Your task to perform on an android device: Add alienware aurora to the cart on target.com Image 0: 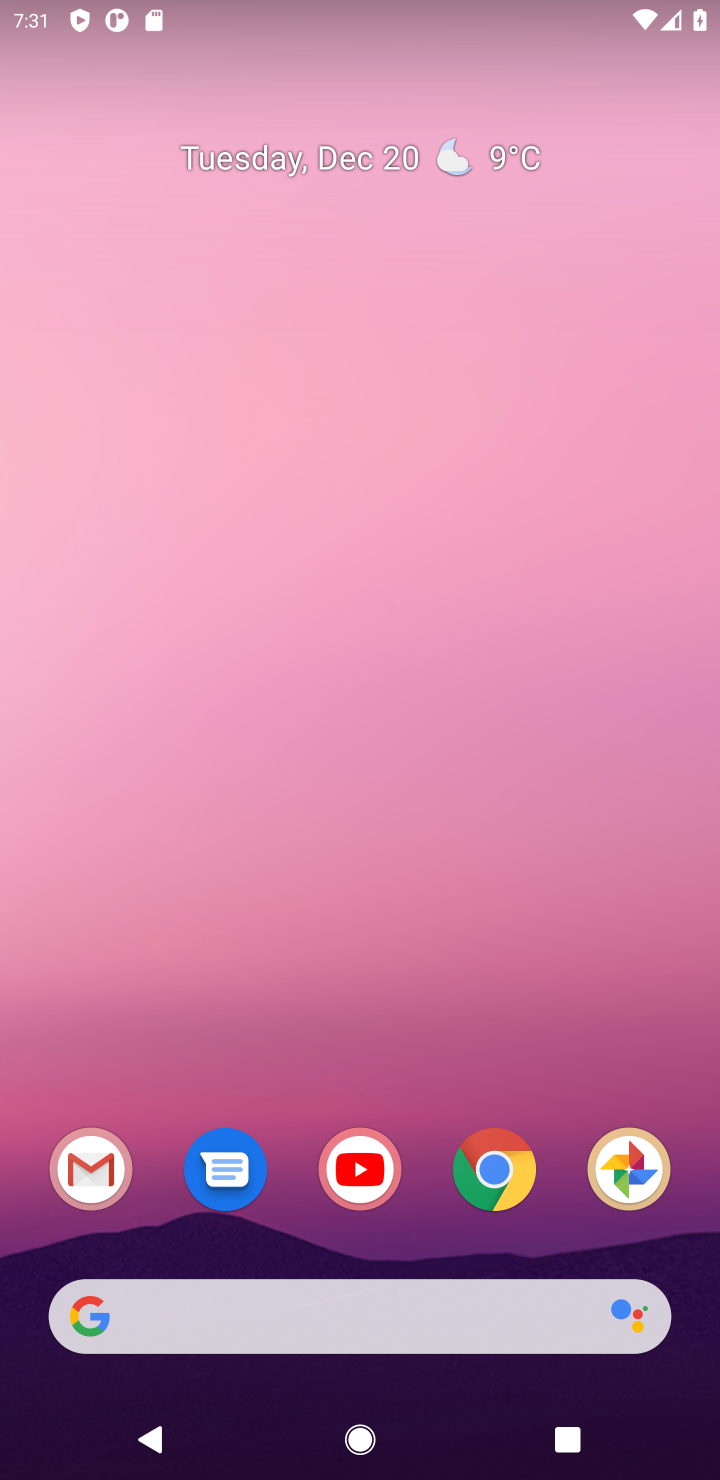
Step 0: click (488, 1190)
Your task to perform on an android device: Add alienware aurora to the cart on target.com Image 1: 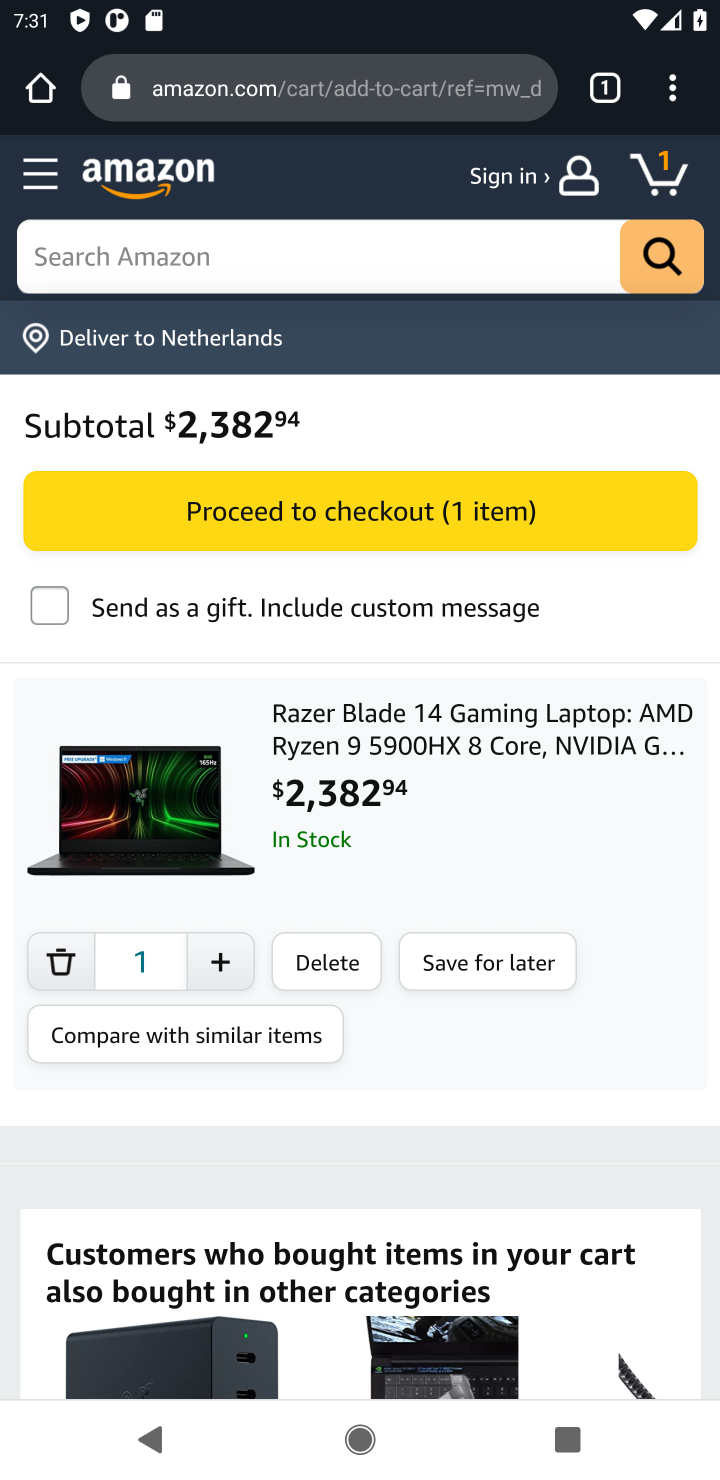
Step 1: click (295, 110)
Your task to perform on an android device: Add alienware aurora to the cart on target.com Image 2: 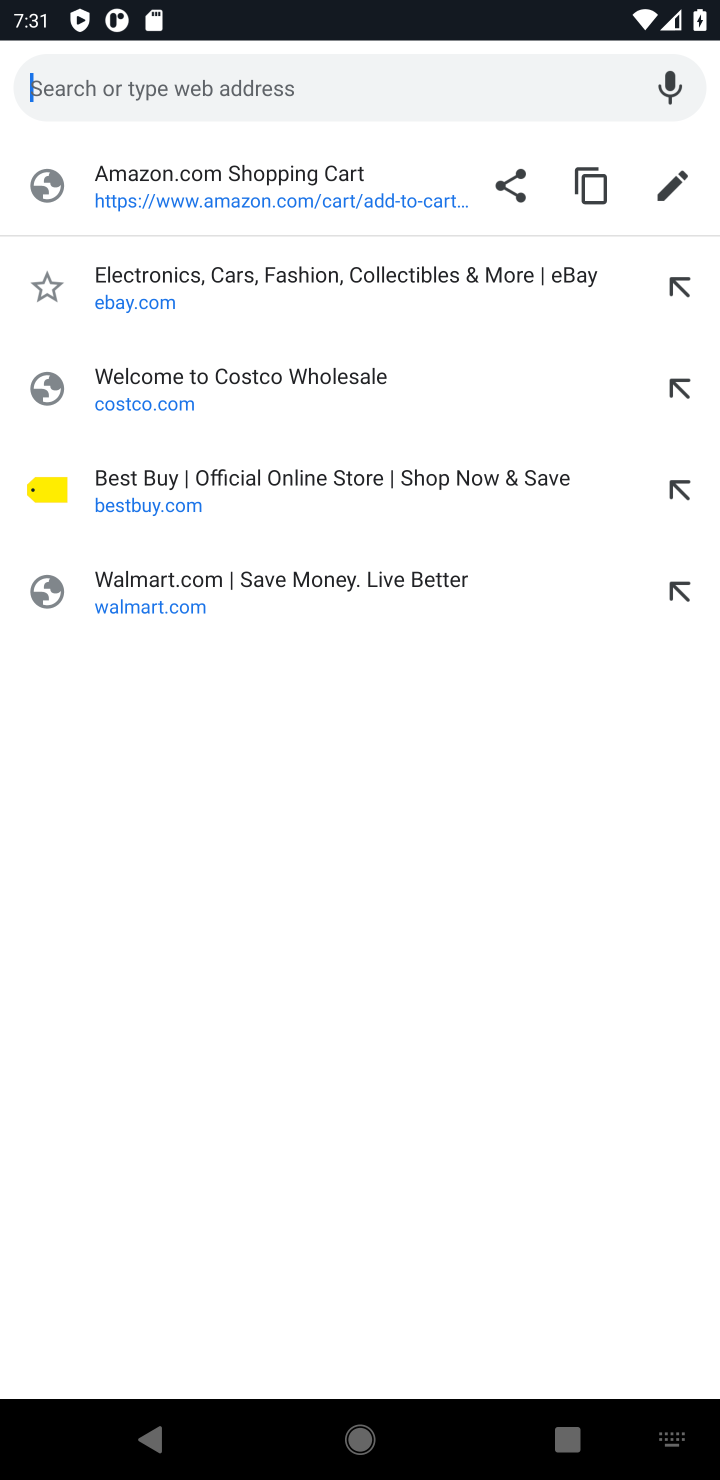
Step 2: type "target"
Your task to perform on an android device: Add alienware aurora to the cart on target.com Image 3: 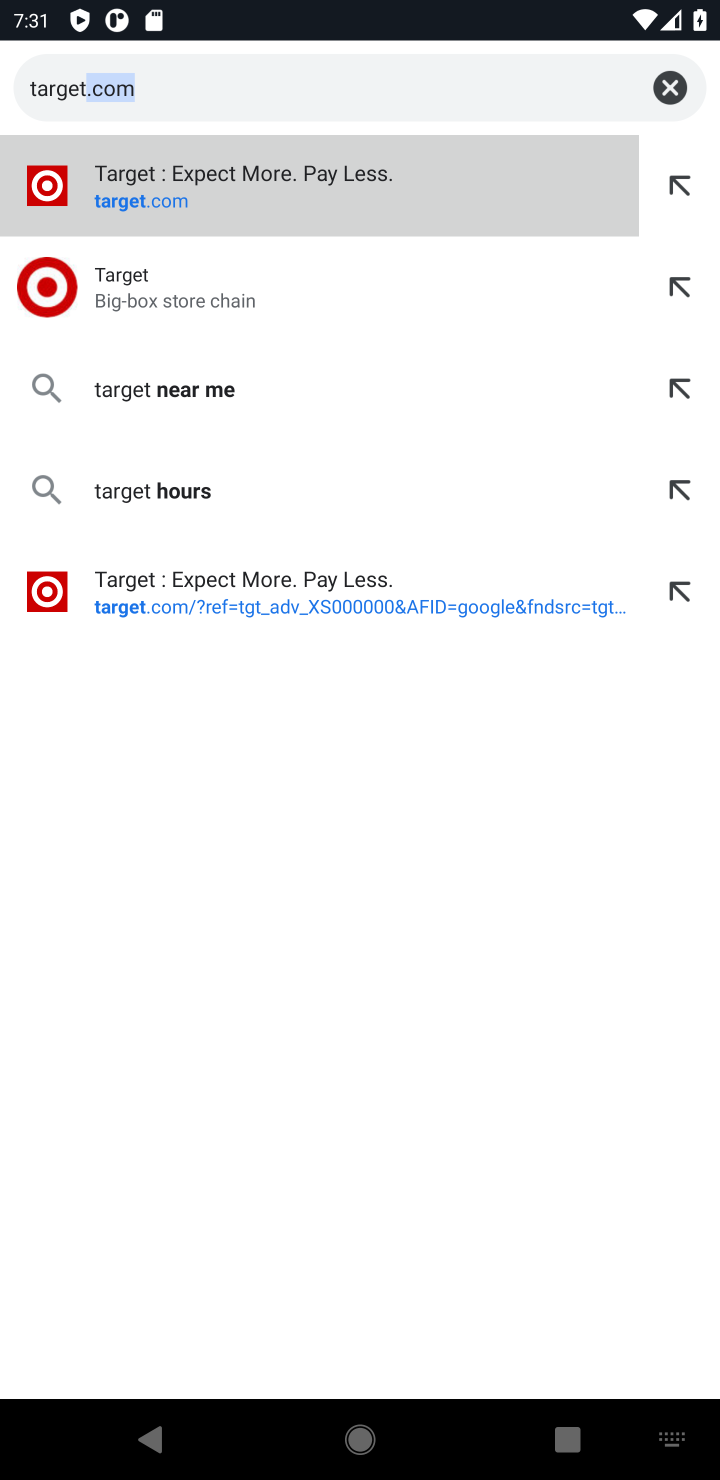
Step 3: click (191, 195)
Your task to perform on an android device: Add alienware aurora to the cart on target.com Image 4: 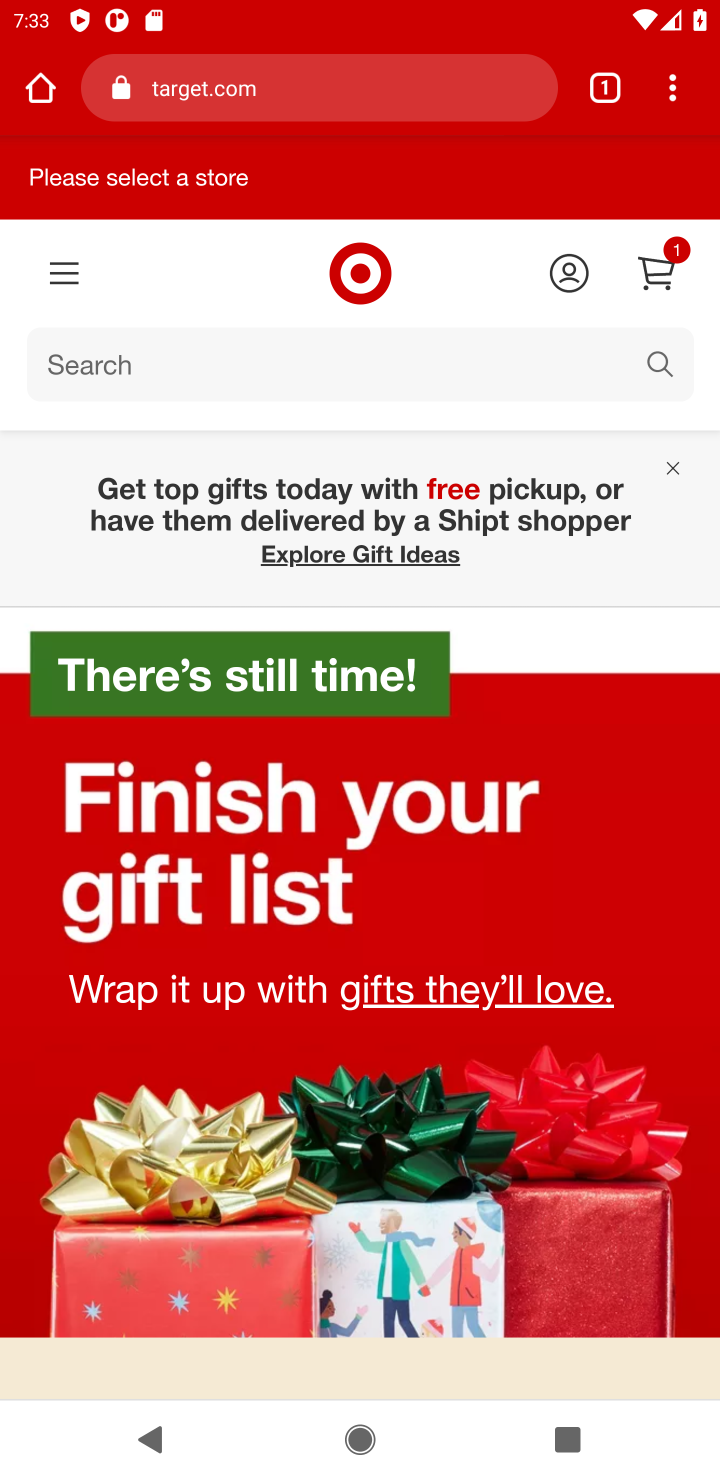
Step 4: click (448, 386)
Your task to perform on an android device: Add alienware aurora to the cart on target.com Image 5: 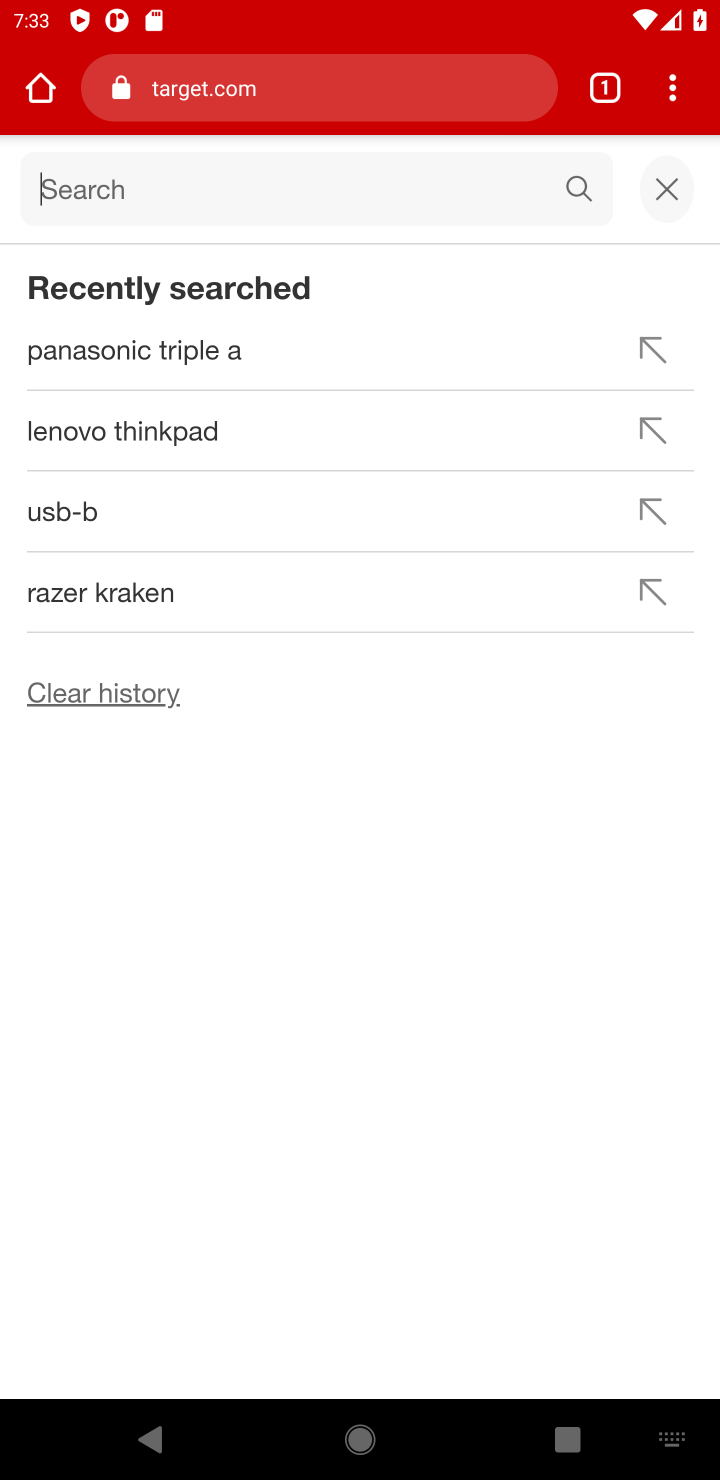
Step 5: type "alienwarre "
Your task to perform on an android device: Add alienware aurora to the cart on target.com Image 6: 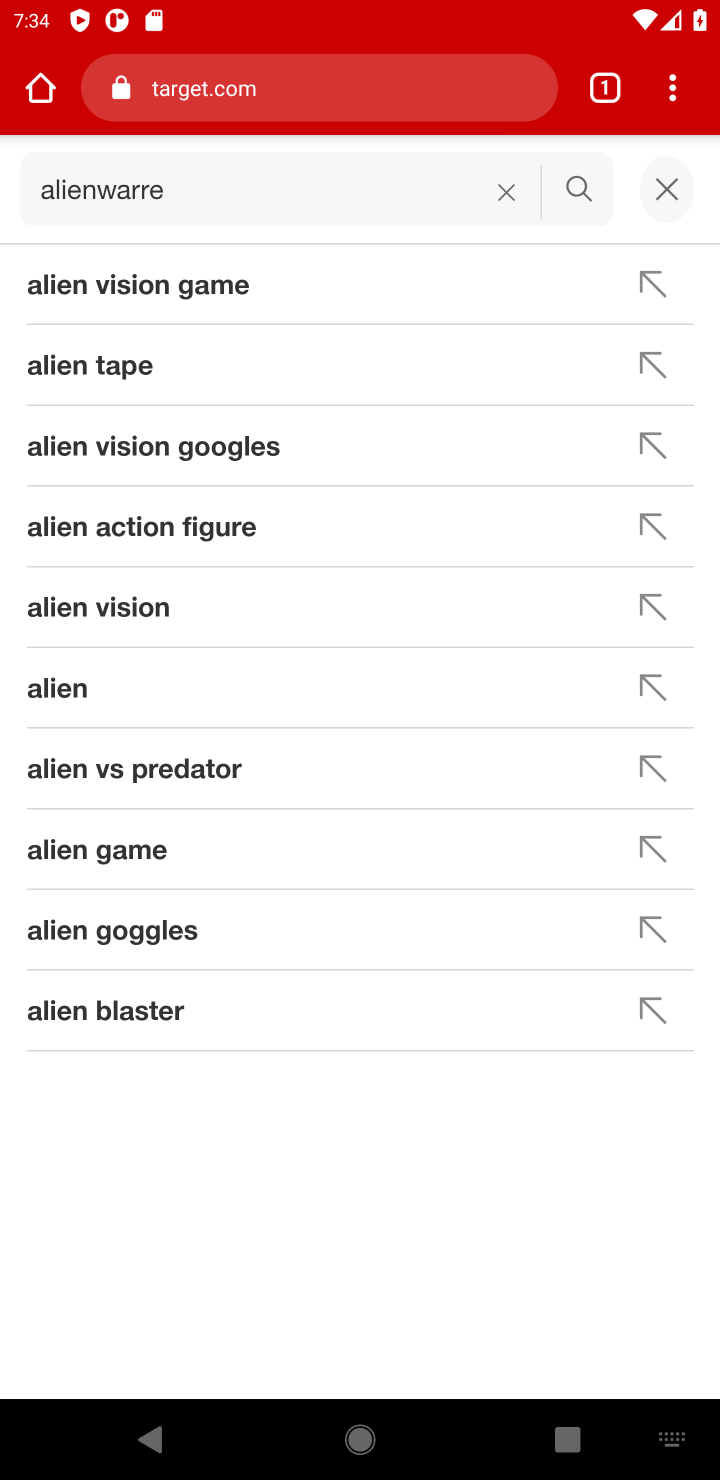
Step 6: click (592, 195)
Your task to perform on an android device: Add alienware aurora to the cart on target.com Image 7: 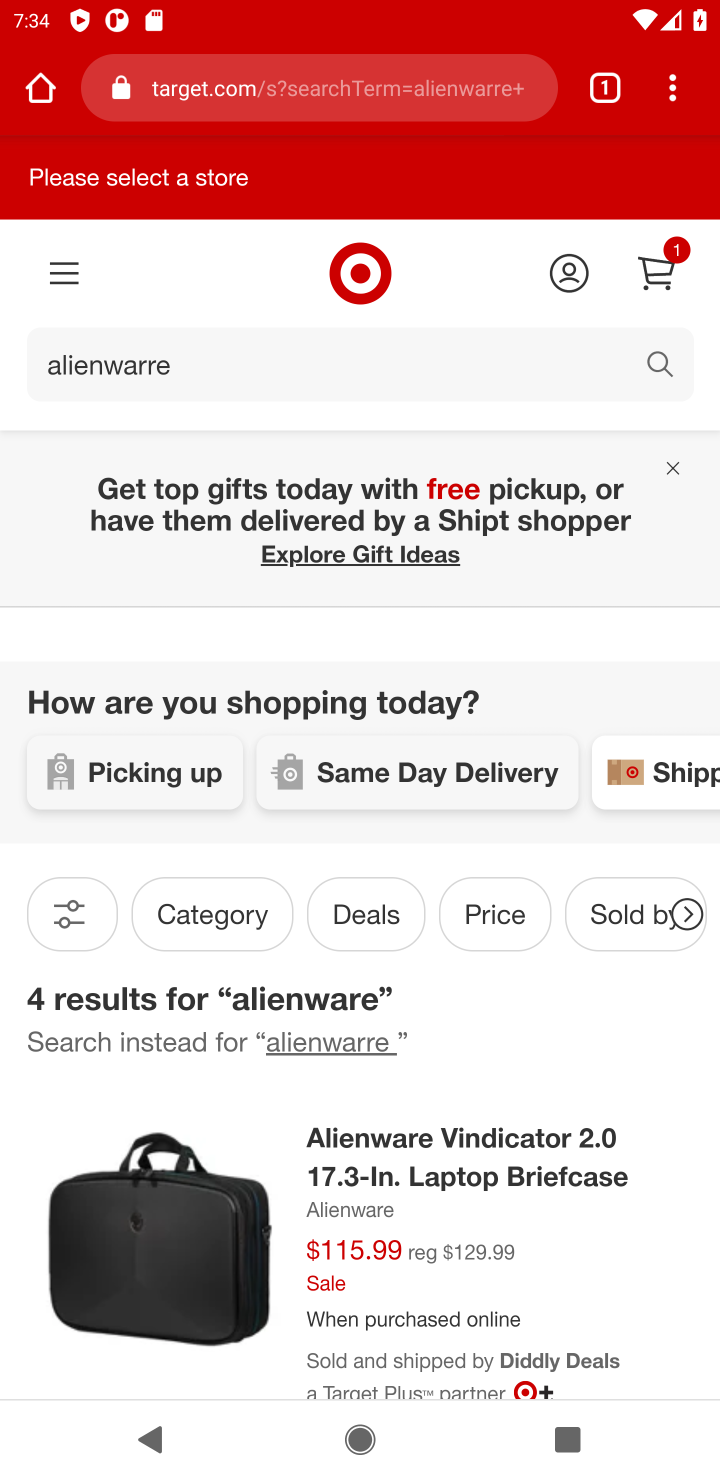
Step 7: click (386, 1161)
Your task to perform on an android device: Add alienware aurora to the cart on target.com Image 8: 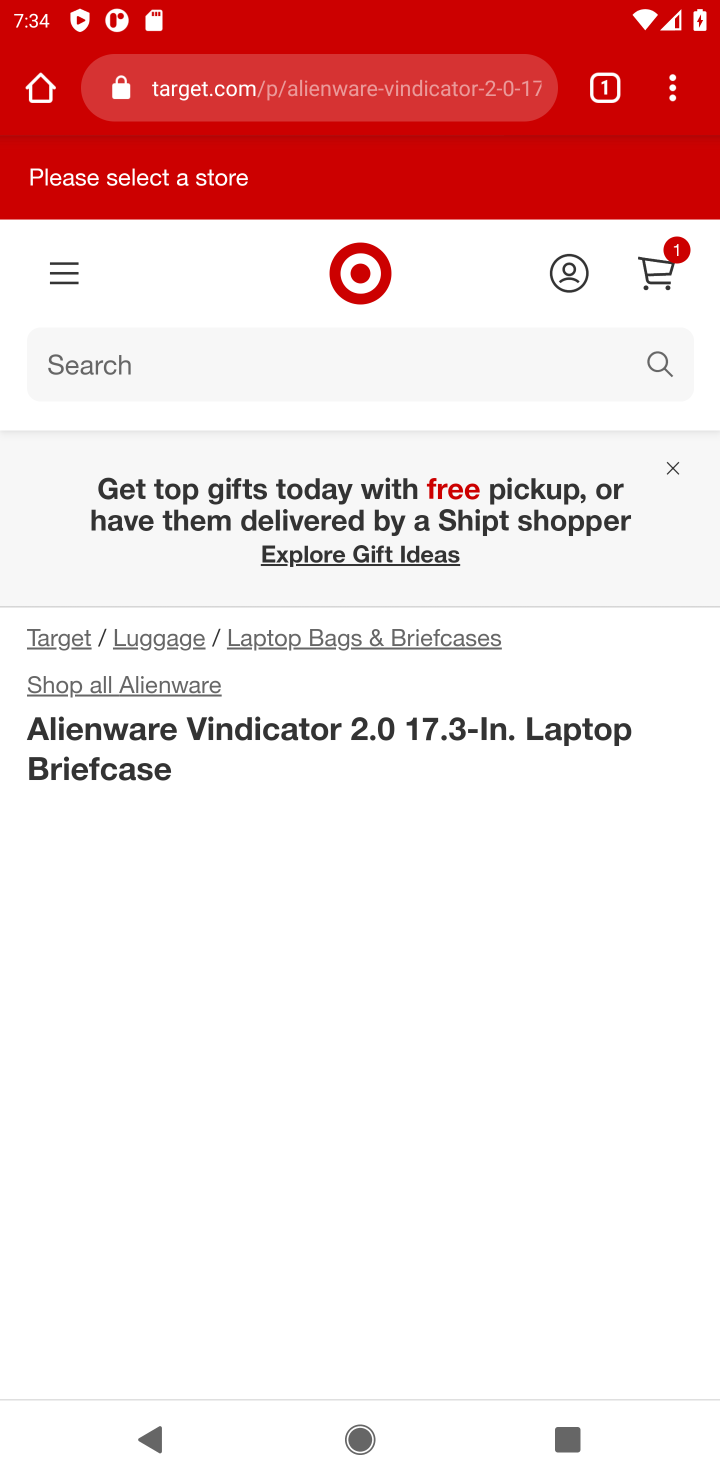
Step 8: task complete